Your task to perform on an android device: turn on airplane mode Image 0: 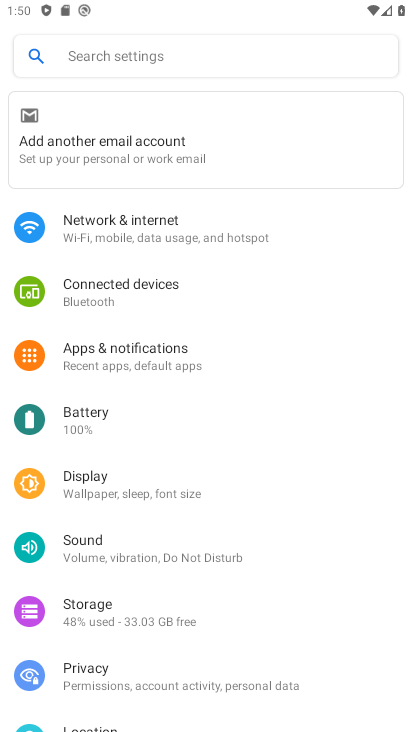
Step 0: click (99, 234)
Your task to perform on an android device: turn on airplane mode Image 1: 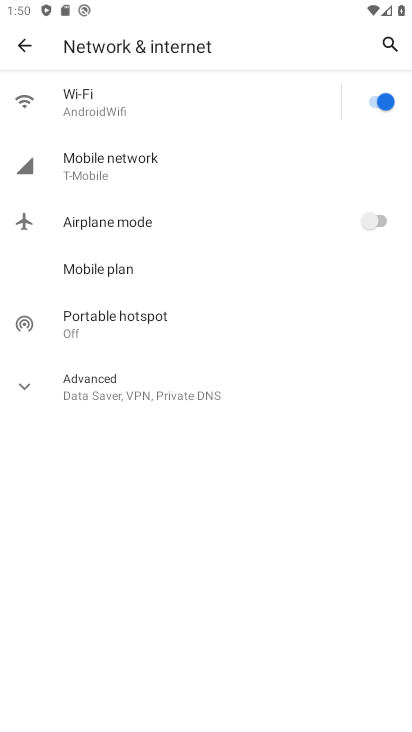
Step 1: click (371, 215)
Your task to perform on an android device: turn on airplane mode Image 2: 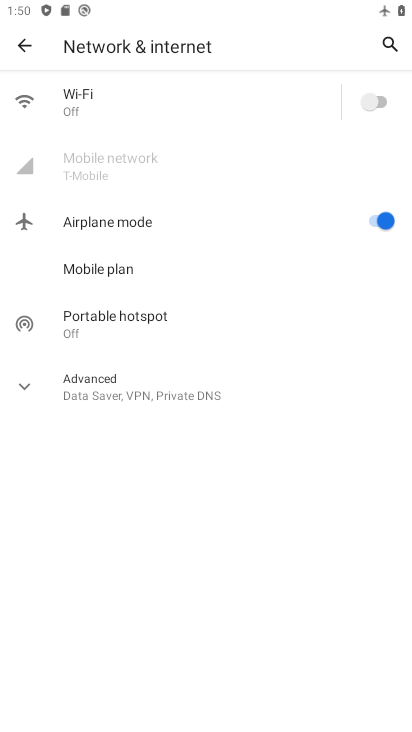
Step 2: task complete